Your task to perform on an android device: Play the last video I watched on Youtube Image 0: 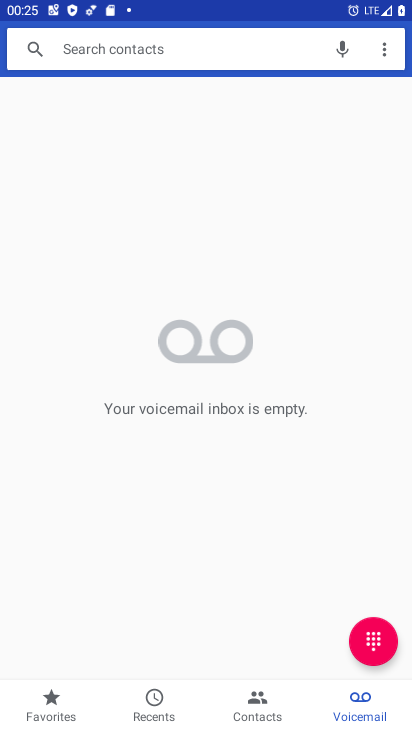
Step 0: press home button
Your task to perform on an android device: Play the last video I watched on Youtube Image 1: 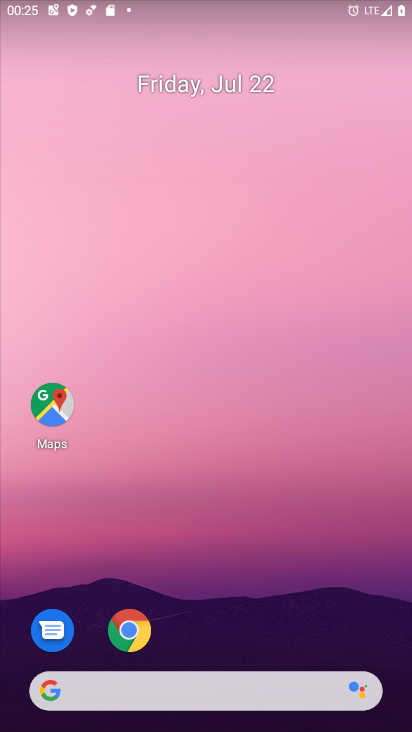
Step 1: drag from (227, 610) to (101, 82)
Your task to perform on an android device: Play the last video I watched on Youtube Image 2: 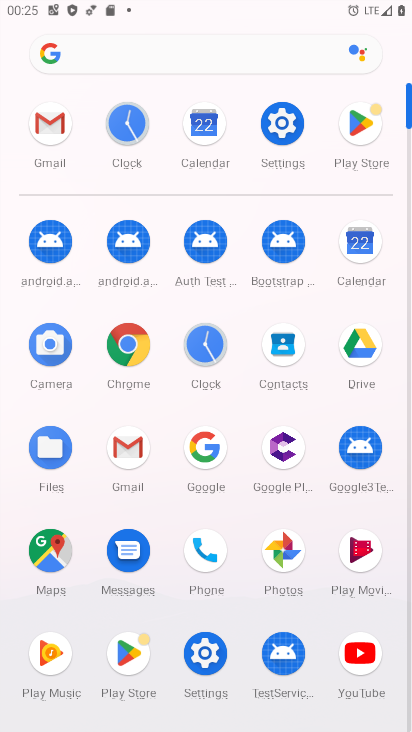
Step 2: click (363, 673)
Your task to perform on an android device: Play the last video I watched on Youtube Image 3: 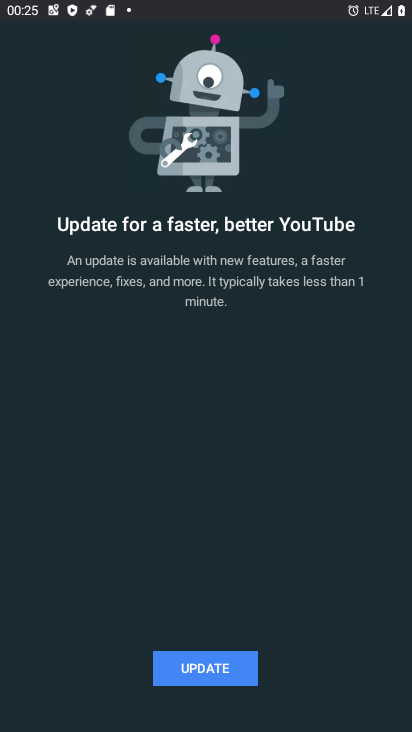
Step 3: click (222, 670)
Your task to perform on an android device: Play the last video I watched on Youtube Image 4: 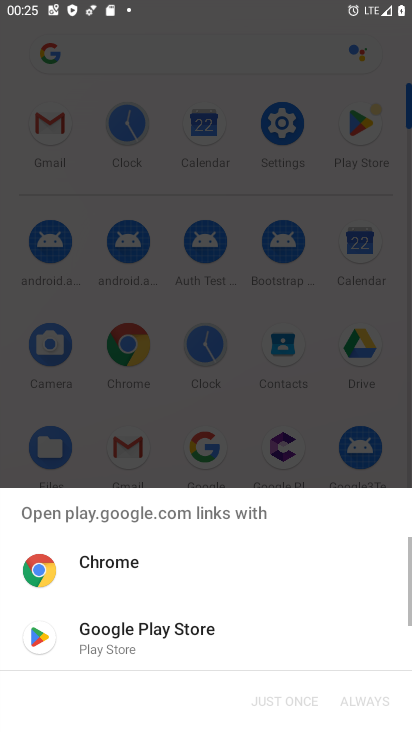
Step 4: click (203, 654)
Your task to perform on an android device: Play the last video I watched on Youtube Image 5: 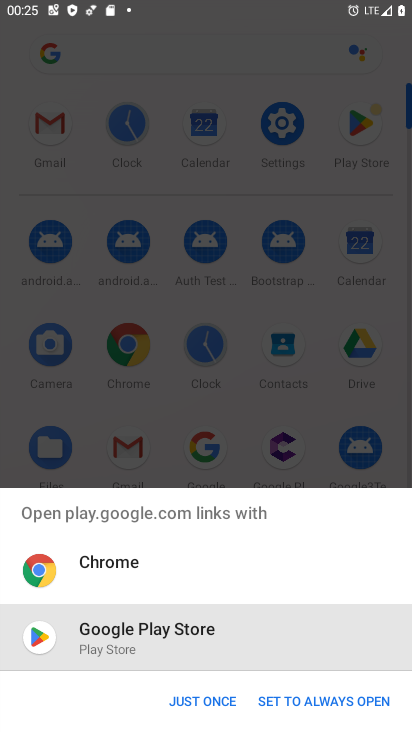
Step 5: click (213, 700)
Your task to perform on an android device: Play the last video I watched on Youtube Image 6: 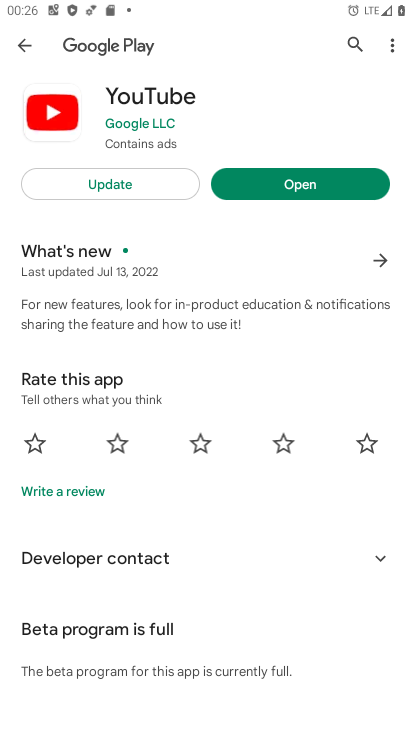
Step 6: click (154, 179)
Your task to perform on an android device: Play the last video I watched on Youtube Image 7: 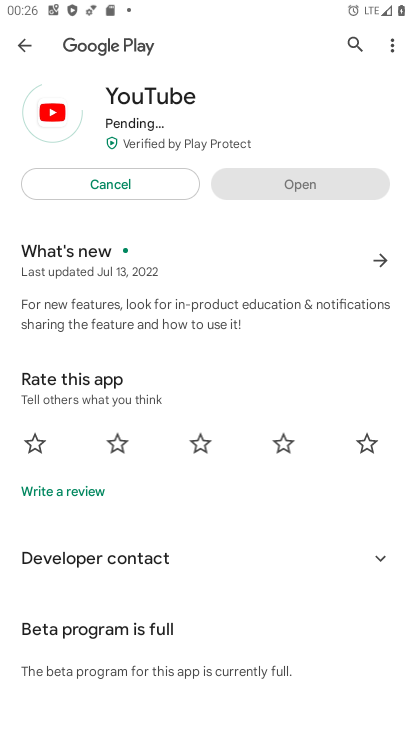
Step 7: click (154, 179)
Your task to perform on an android device: Play the last video I watched on Youtube Image 8: 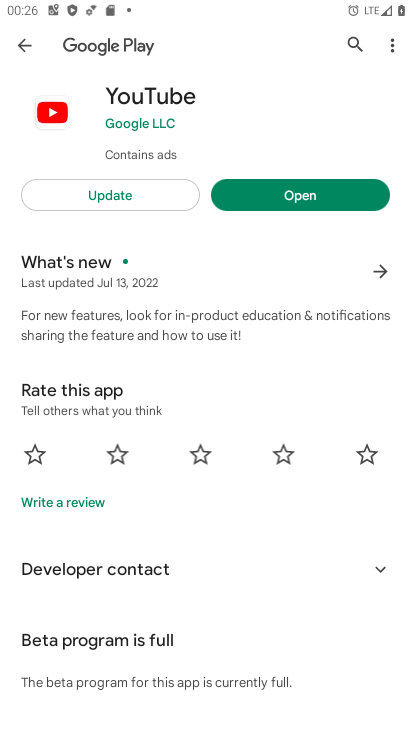
Step 8: click (154, 179)
Your task to perform on an android device: Play the last video I watched on Youtube Image 9: 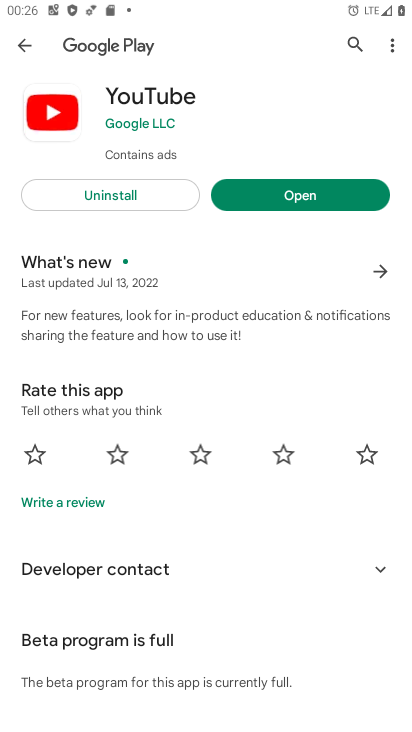
Step 9: click (251, 202)
Your task to perform on an android device: Play the last video I watched on Youtube Image 10: 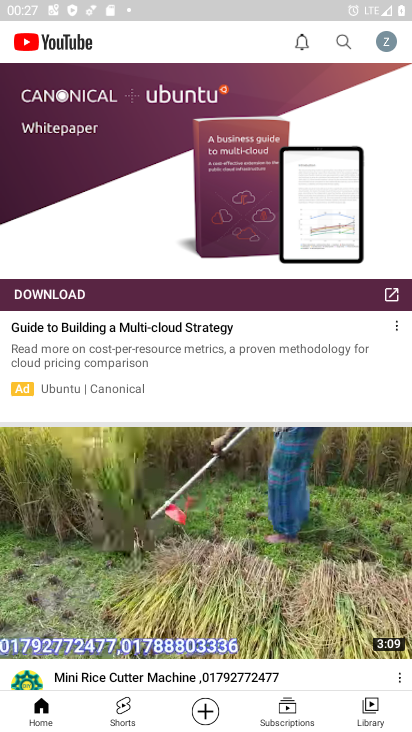
Step 10: click (370, 711)
Your task to perform on an android device: Play the last video I watched on Youtube Image 11: 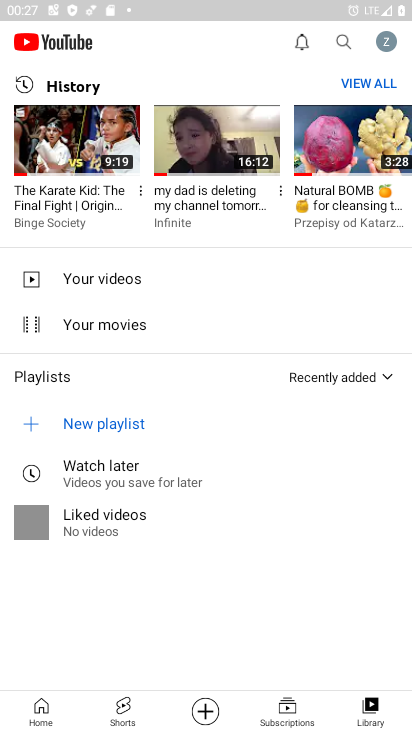
Step 11: click (97, 167)
Your task to perform on an android device: Play the last video I watched on Youtube Image 12: 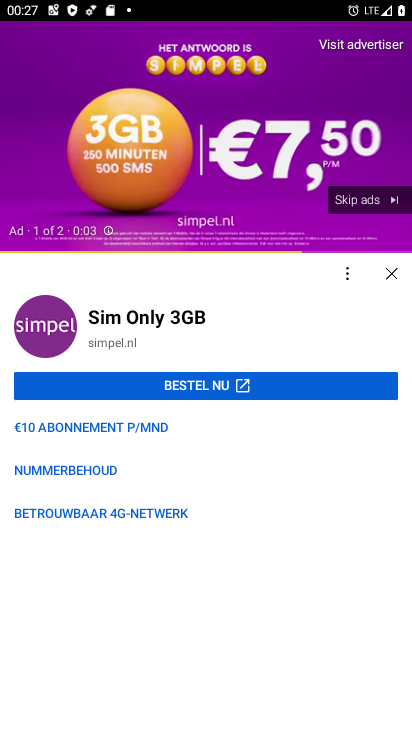
Step 12: click (352, 193)
Your task to perform on an android device: Play the last video I watched on Youtube Image 13: 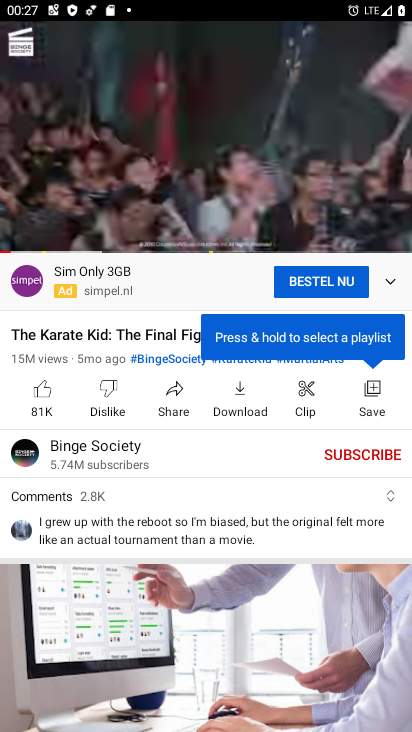
Step 13: click (179, 116)
Your task to perform on an android device: Play the last video I watched on Youtube Image 14: 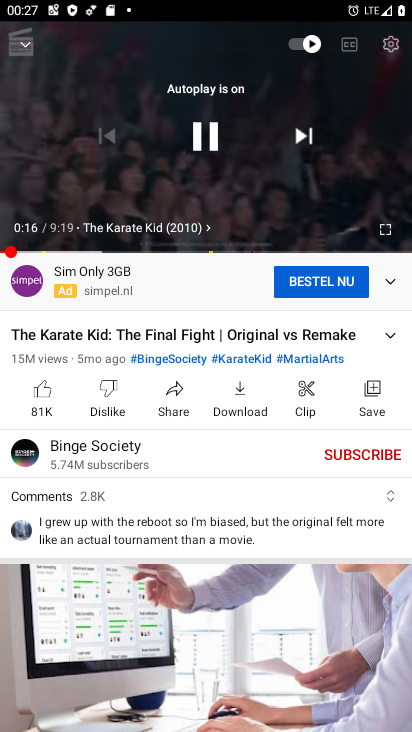
Step 14: click (204, 134)
Your task to perform on an android device: Play the last video I watched on Youtube Image 15: 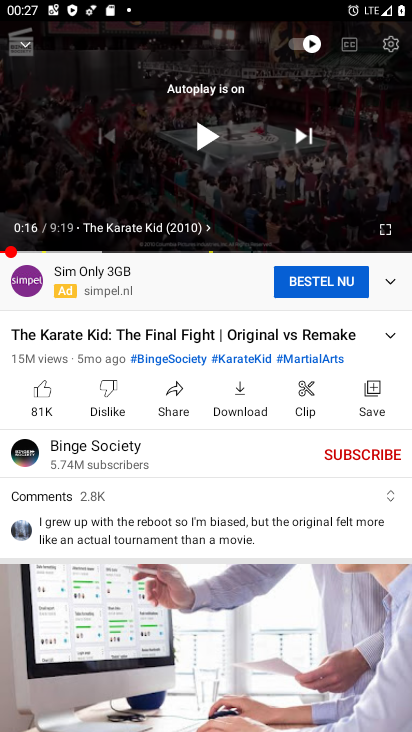
Step 15: task complete